Your task to perform on an android device: toggle data saver in the chrome app Image 0: 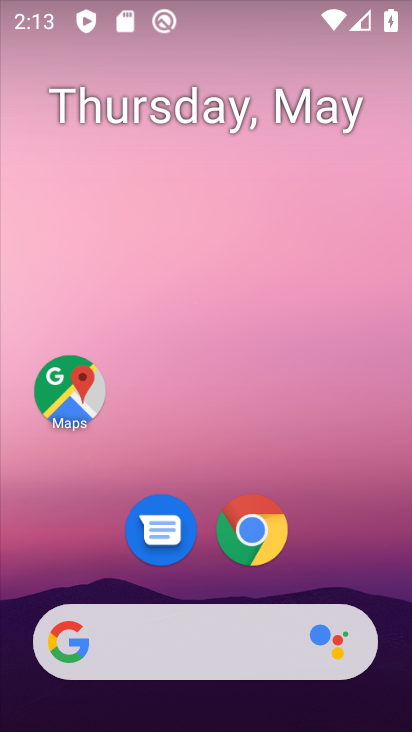
Step 0: press home button
Your task to perform on an android device: toggle data saver in the chrome app Image 1: 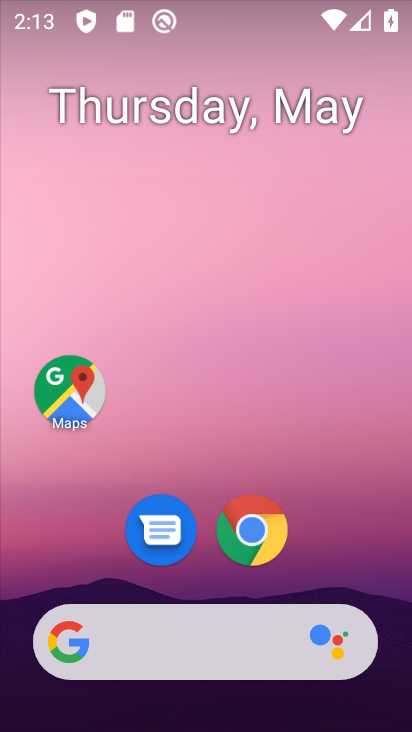
Step 1: drag from (165, 657) to (339, 203)
Your task to perform on an android device: toggle data saver in the chrome app Image 2: 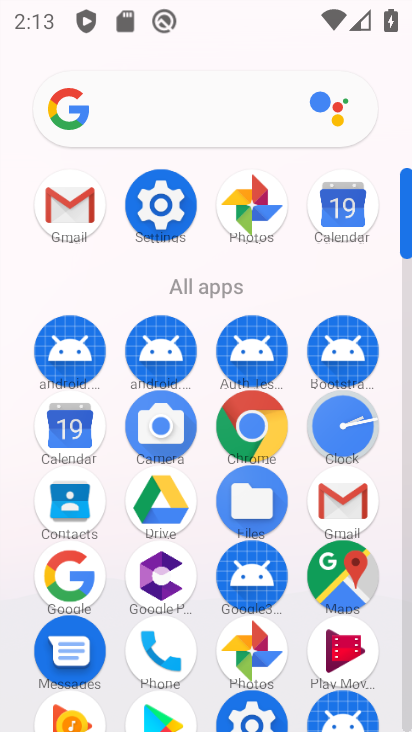
Step 2: click (257, 429)
Your task to perform on an android device: toggle data saver in the chrome app Image 3: 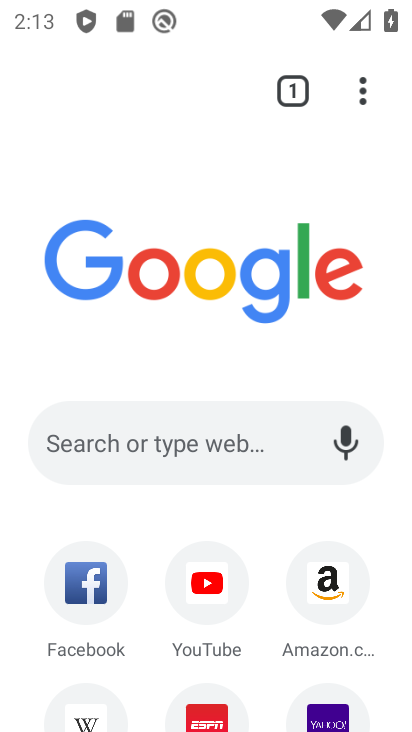
Step 3: drag from (358, 101) to (210, 532)
Your task to perform on an android device: toggle data saver in the chrome app Image 4: 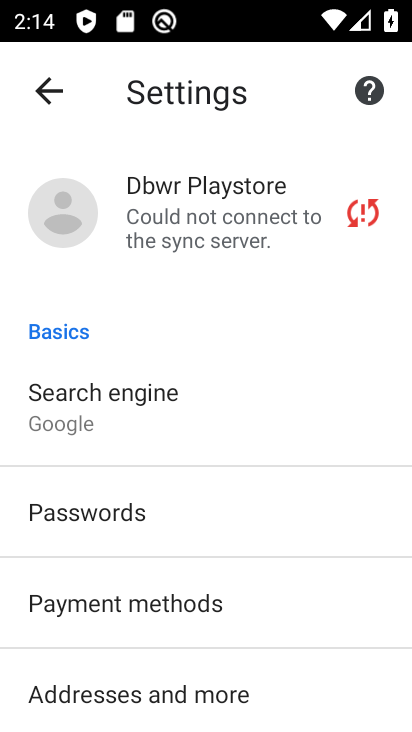
Step 4: drag from (225, 657) to (409, 257)
Your task to perform on an android device: toggle data saver in the chrome app Image 5: 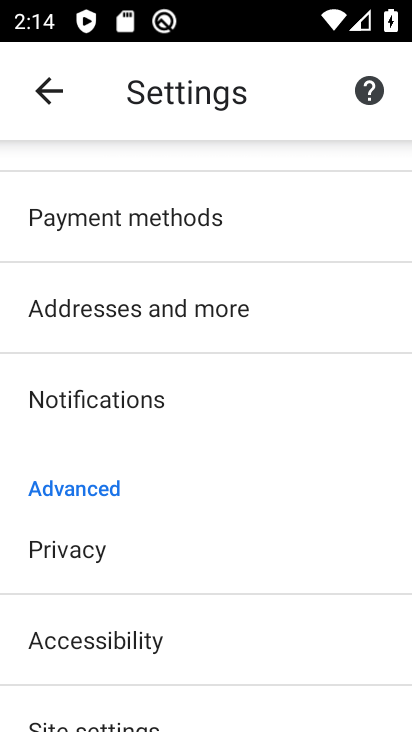
Step 5: drag from (273, 651) to (354, 284)
Your task to perform on an android device: toggle data saver in the chrome app Image 6: 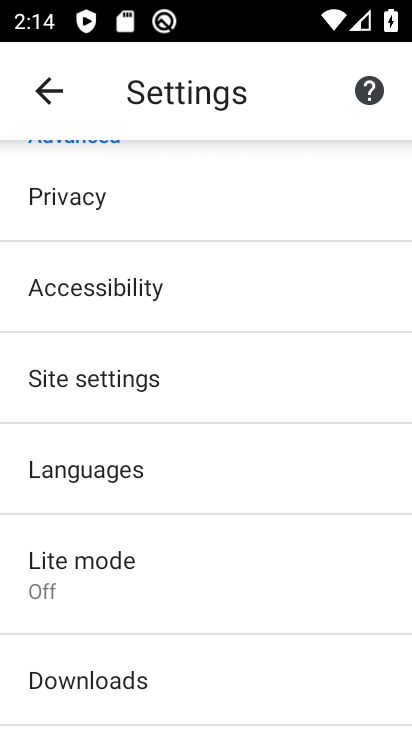
Step 6: click (114, 582)
Your task to perform on an android device: toggle data saver in the chrome app Image 7: 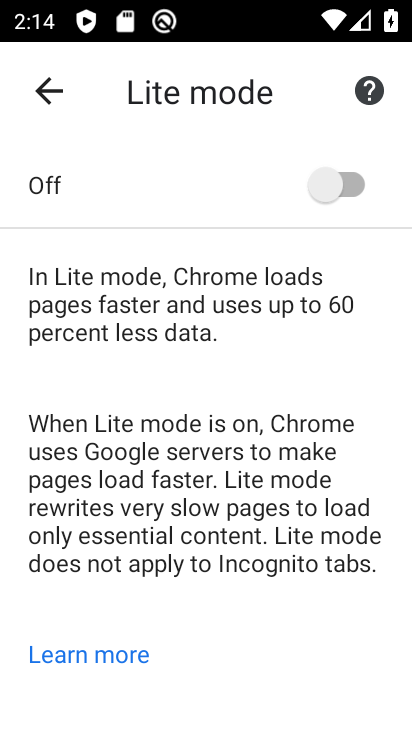
Step 7: click (356, 189)
Your task to perform on an android device: toggle data saver in the chrome app Image 8: 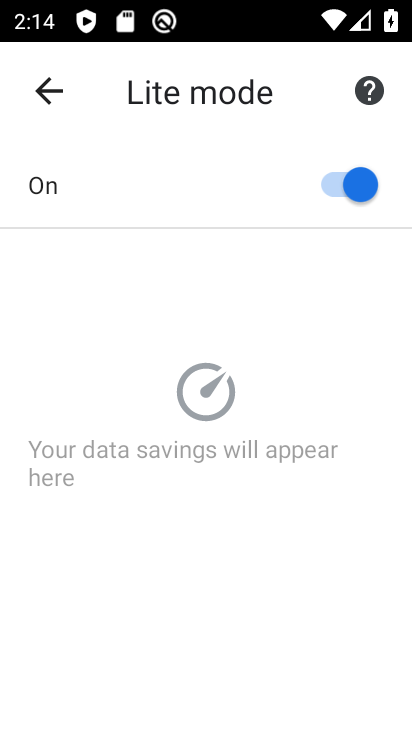
Step 8: task complete